Your task to perform on an android device: Open Maps and search for coffee Image 0: 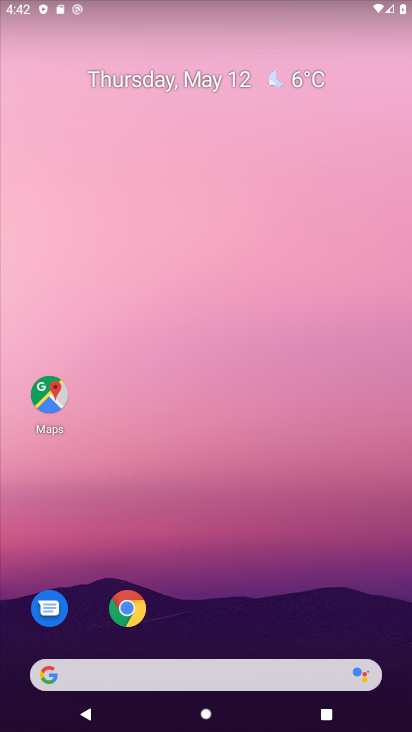
Step 0: click (294, 605)
Your task to perform on an android device: Open Maps and search for coffee Image 1: 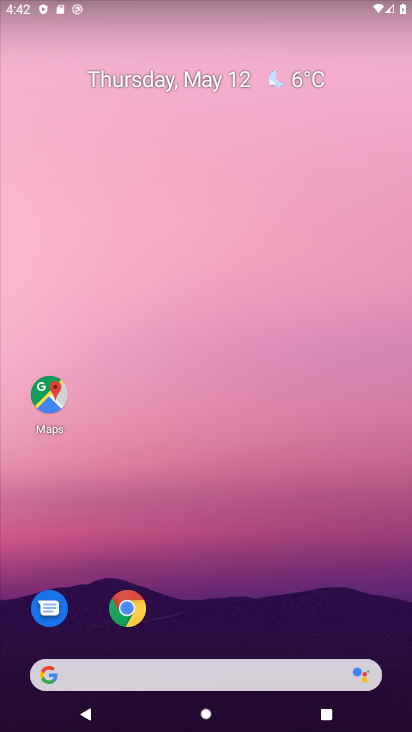
Step 1: click (54, 396)
Your task to perform on an android device: Open Maps and search for coffee Image 2: 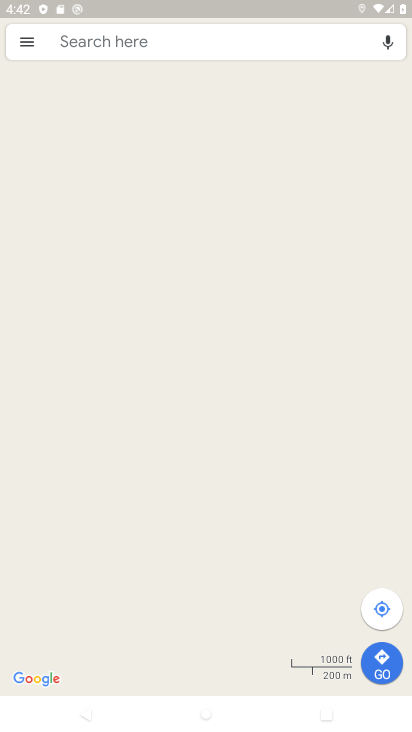
Step 2: click (174, 43)
Your task to perform on an android device: Open Maps and search for coffee Image 3: 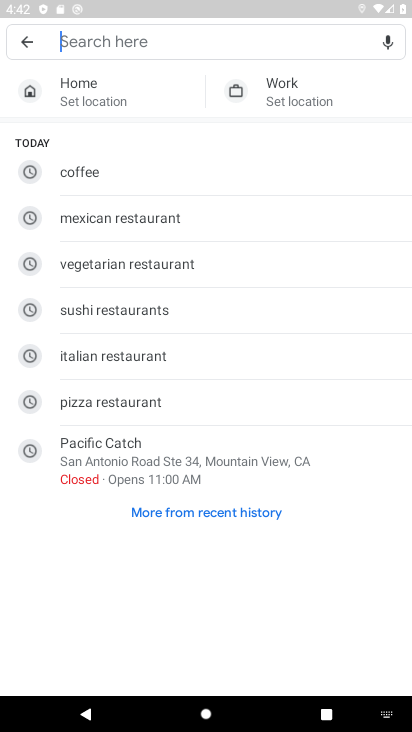
Step 3: type " coffee"
Your task to perform on an android device: Open Maps and search for coffee Image 4: 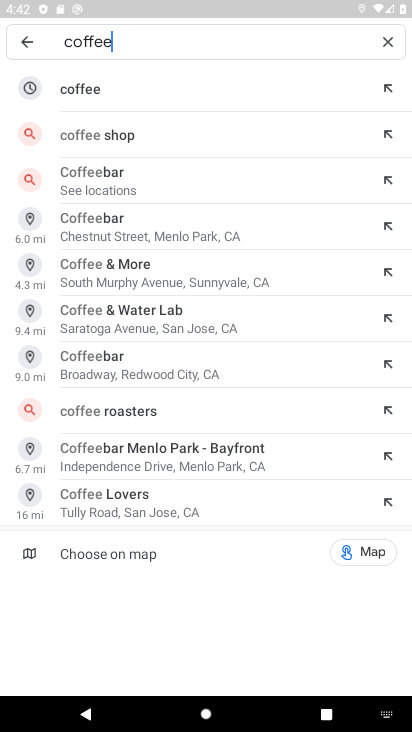
Step 4: click (111, 79)
Your task to perform on an android device: Open Maps and search for coffee Image 5: 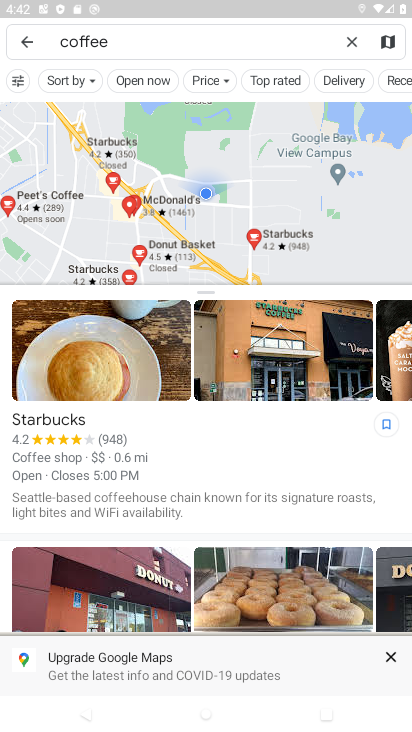
Step 5: task complete